Your task to perform on an android device: turn on location history Image 0: 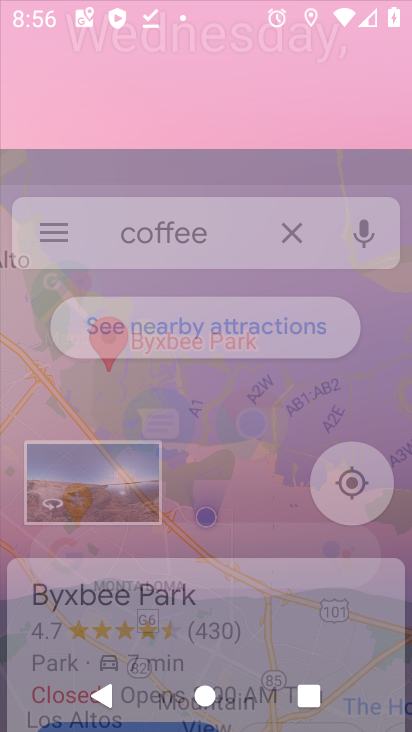
Step 0: click (180, 299)
Your task to perform on an android device: turn on location history Image 1: 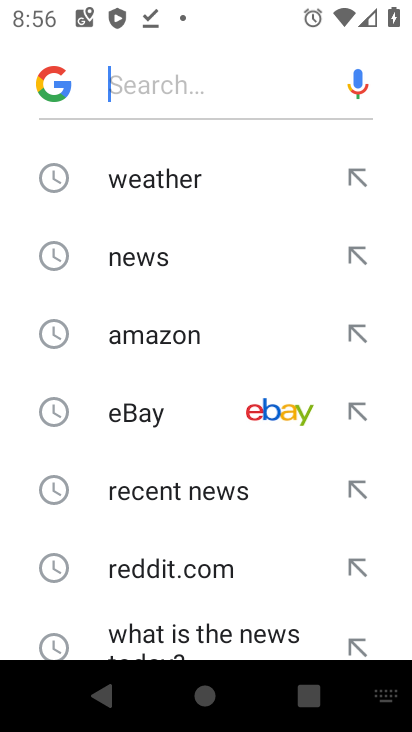
Step 1: press back button
Your task to perform on an android device: turn on location history Image 2: 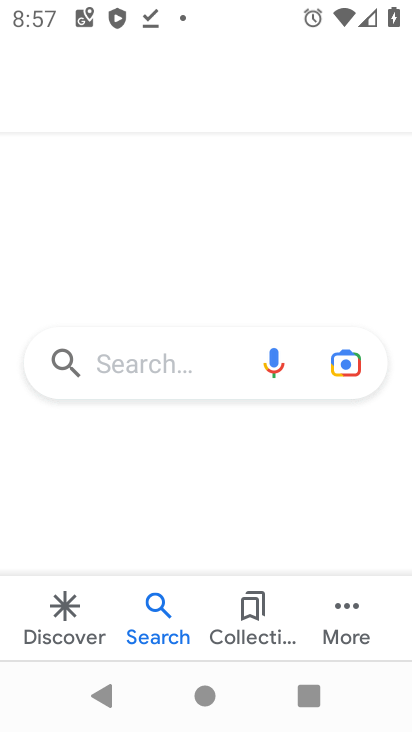
Step 2: press home button
Your task to perform on an android device: turn on location history Image 3: 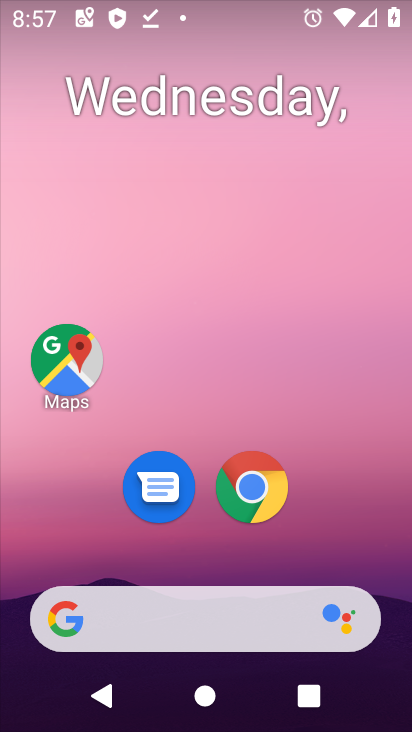
Step 3: drag from (282, 599) to (132, 39)
Your task to perform on an android device: turn on location history Image 4: 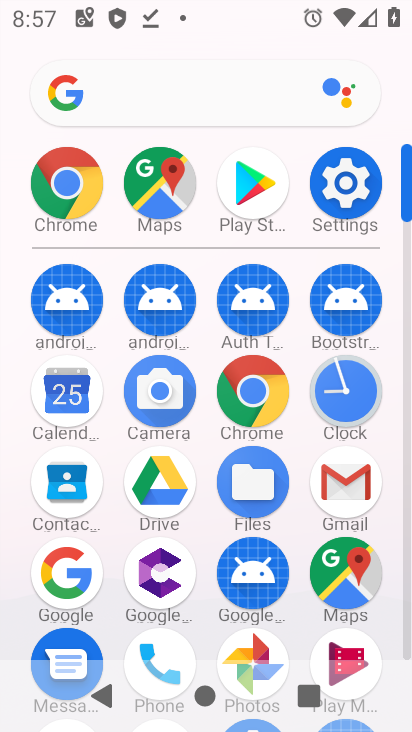
Step 4: click (355, 565)
Your task to perform on an android device: turn on location history Image 5: 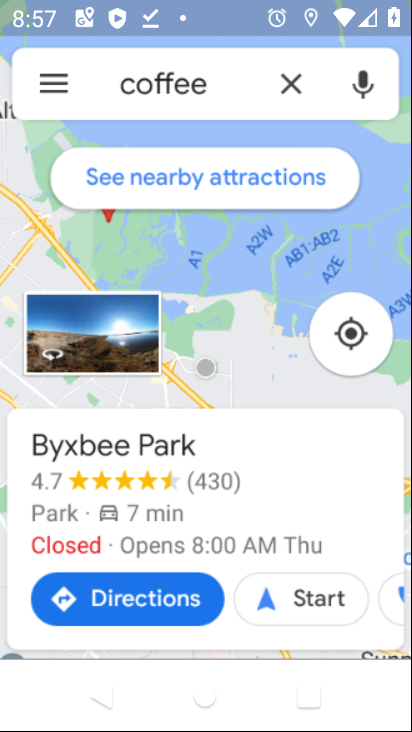
Step 5: click (344, 575)
Your task to perform on an android device: turn on location history Image 6: 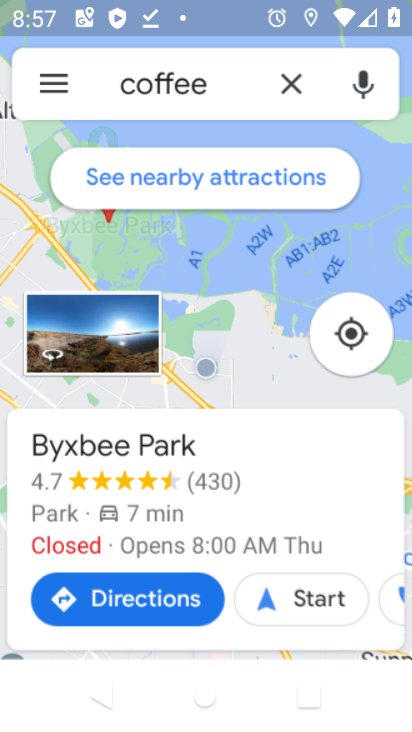
Step 6: click (345, 573)
Your task to perform on an android device: turn on location history Image 7: 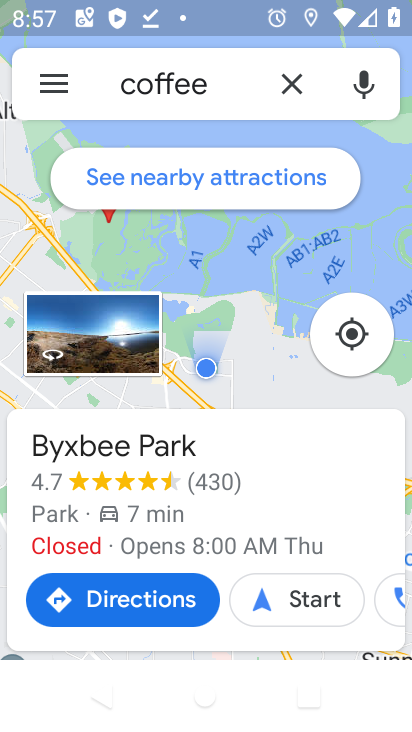
Step 7: click (59, 81)
Your task to perform on an android device: turn on location history Image 8: 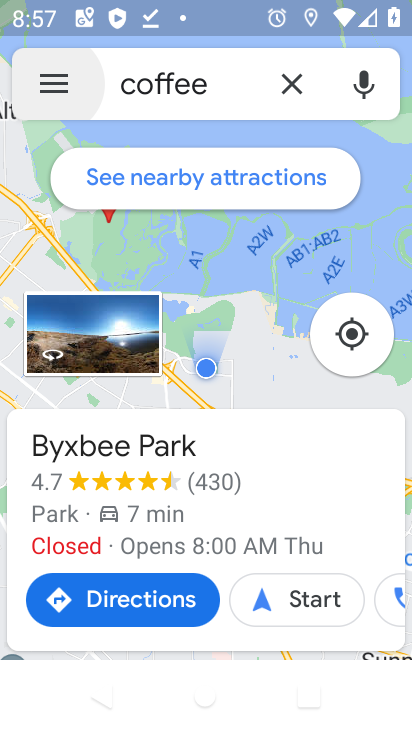
Step 8: click (58, 81)
Your task to perform on an android device: turn on location history Image 9: 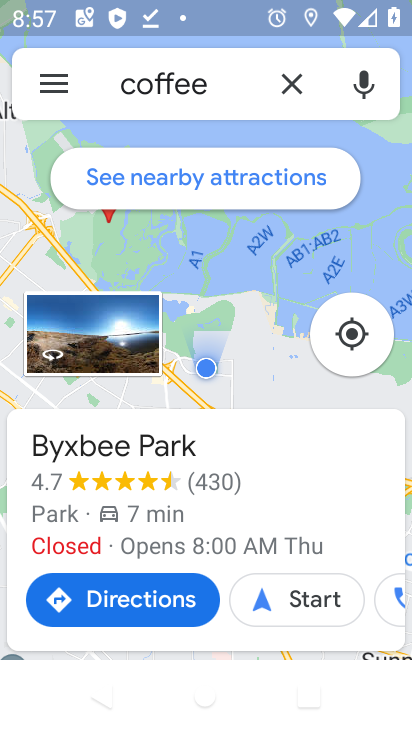
Step 9: click (70, 75)
Your task to perform on an android device: turn on location history Image 10: 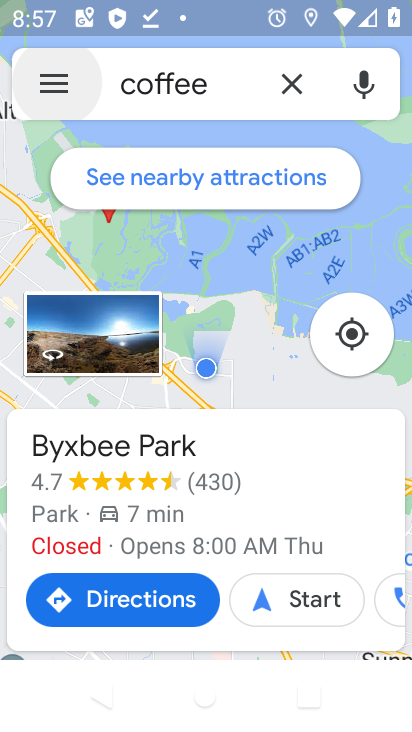
Step 10: click (70, 75)
Your task to perform on an android device: turn on location history Image 11: 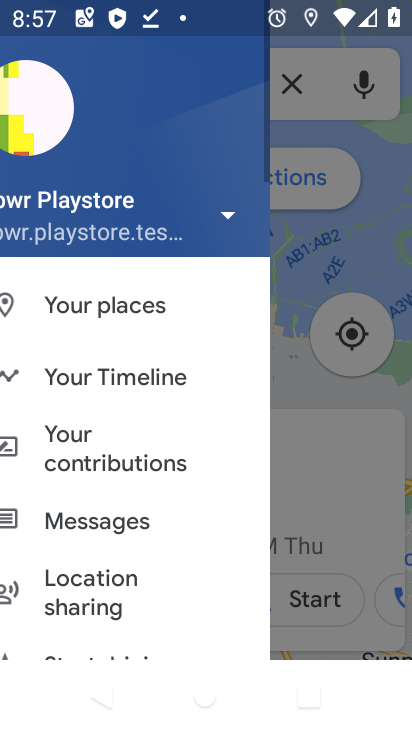
Step 11: click (70, 75)
Your task to perform on an android device: turn on location history Image 12: 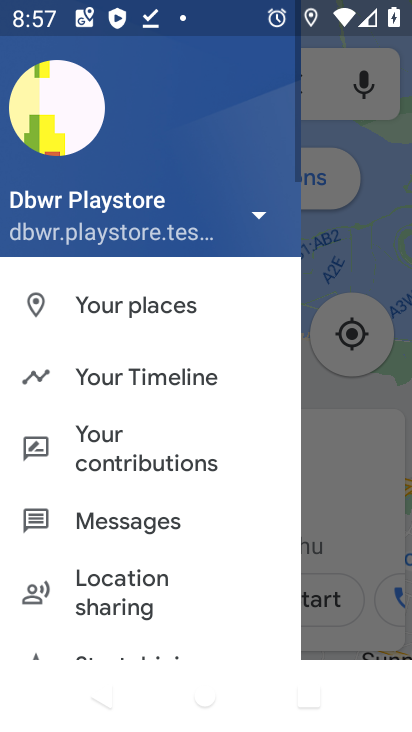
Step 12: click (70, 75)
Your task to perform on an android device: turn on location history Image 13: 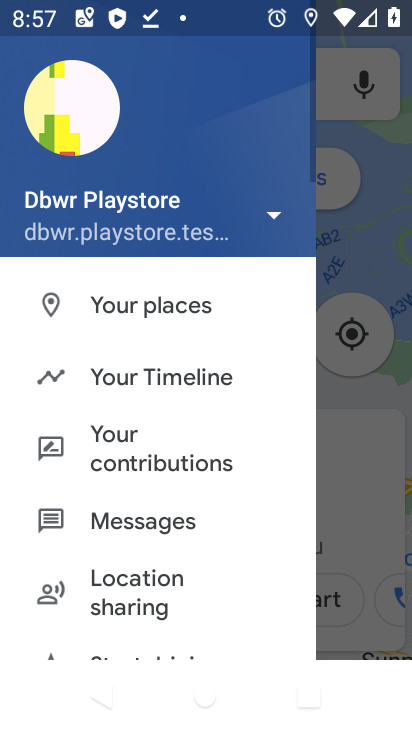
Step 13: click (159, 383)
Your task to perform on an android device: turn on location history Image 14: 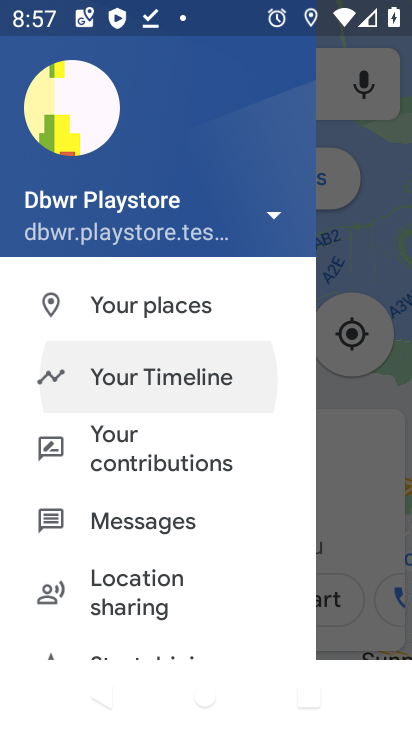
Step 14: click (168, 373)
Your task to perform on an android device: turn on location history Image 15: 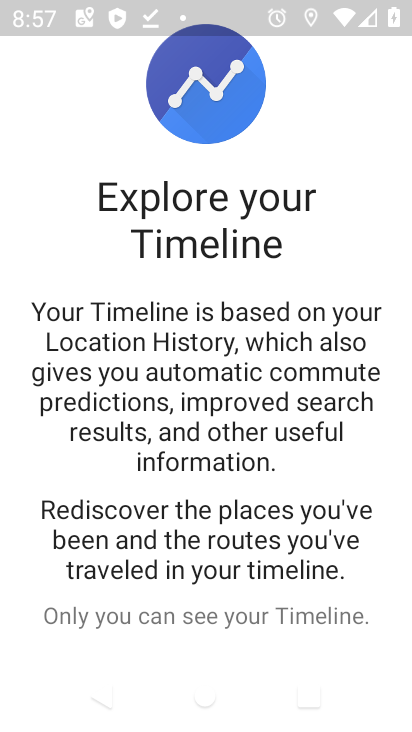
Step 15: drag from (183, 559) to (88, 297)
Your task to perform on an android device: turn on location history Image 16: 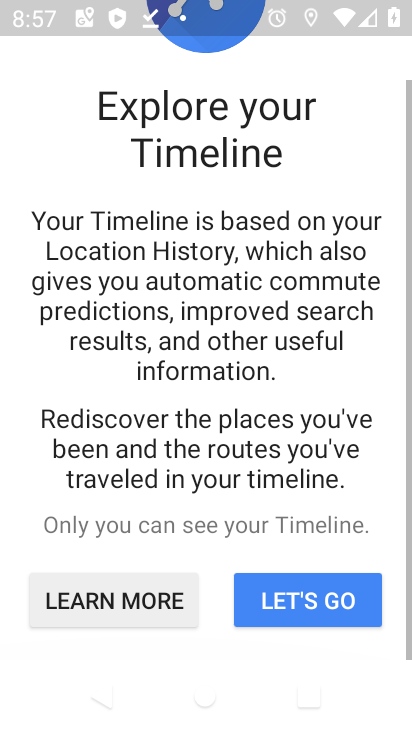
Step 16: drag from (181, 533) to (138, 264)
Your task to perform on an android device: turn on location history Image 17: 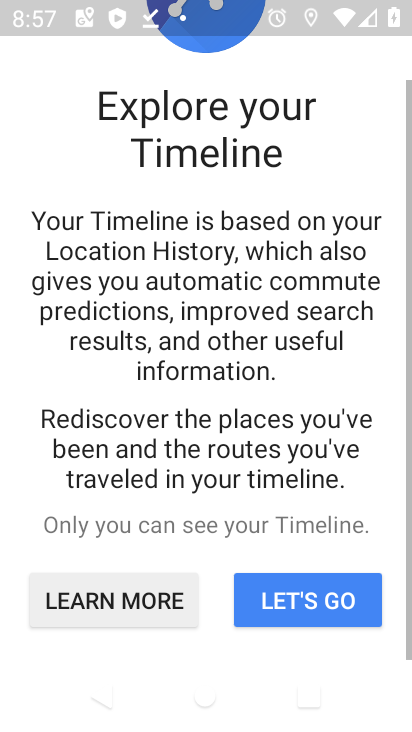
Step 17: click (318, 601)
Your task to perform on an android device: turn on location history Image 18: 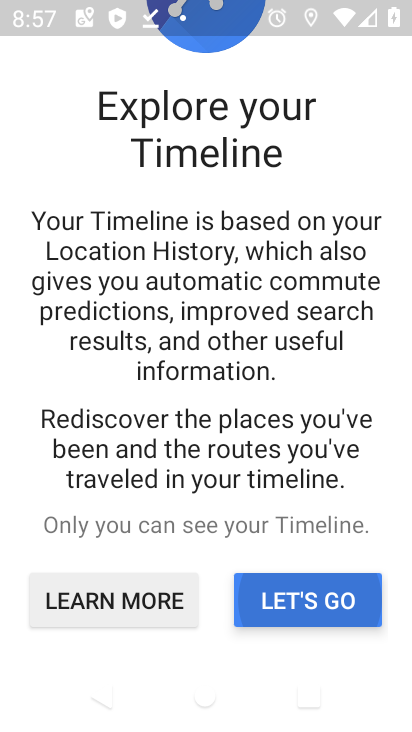
Step 18: click (318, 601)
Your task to perform on an android device: turn on location history Image 19: 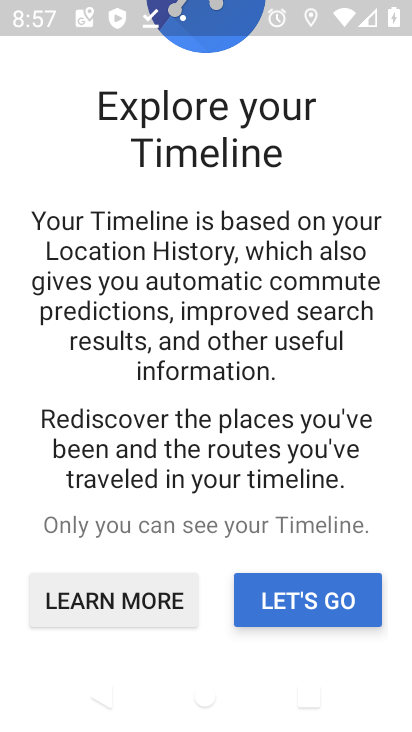
Step 19: click (318, 601)
Your task to perform on an android device: turn on location history Image 20: 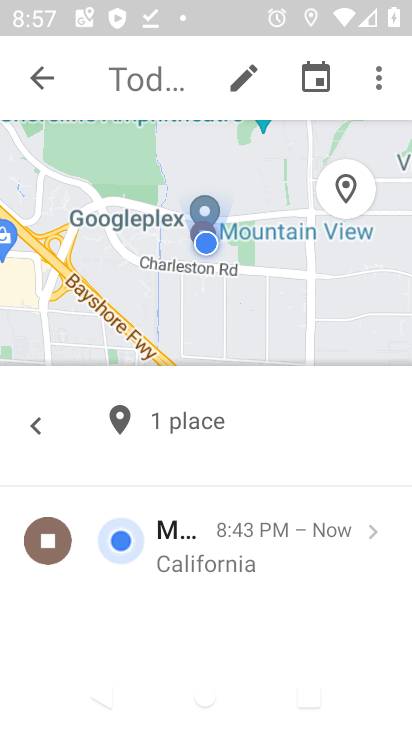
Step 20: drag from (370, 90) to (212, 502)
Your task to perform on an android device: turn on location history Image 21: 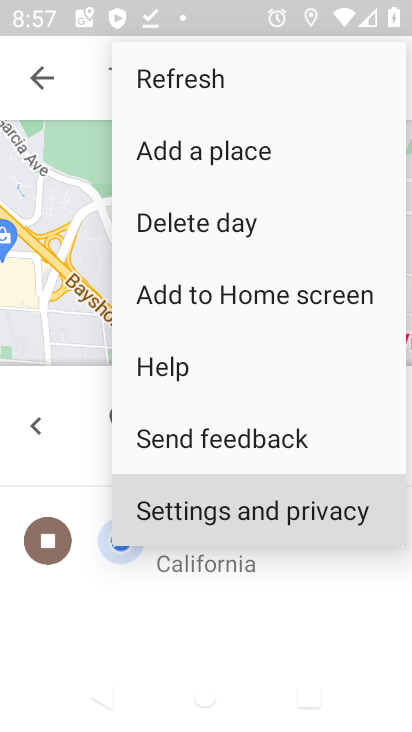
Step 21: click (212, 502)
Your task to perform on an android device: turn on location history Image 22: 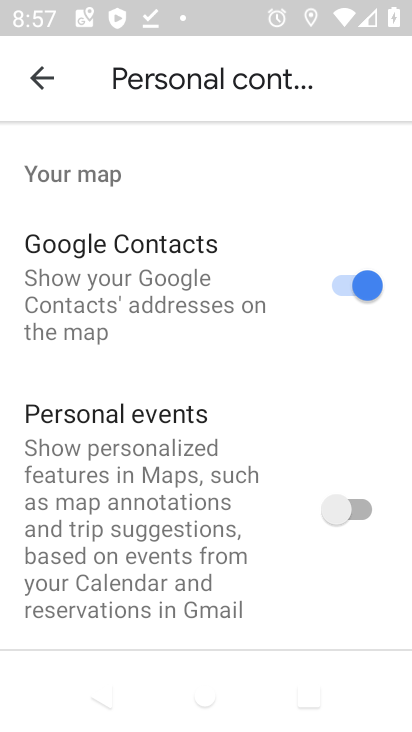
Step 22: drag from (150, 460) to (28, 29)
Your task to perform on an android device: turn on location history Image 23: 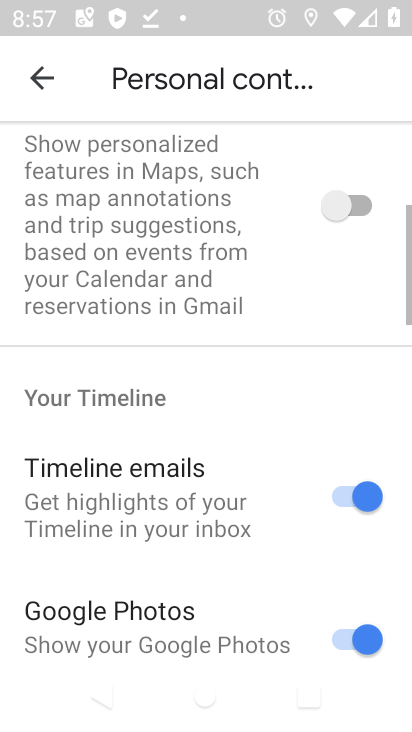
Step 23: drag from (184, 508) to (153, 137)
Your task to perform on an android device: turn on location history Image 24: 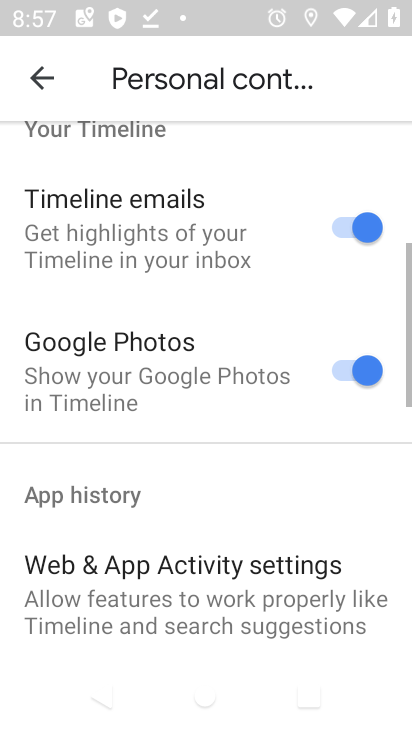
Step 24: drag from (219, 483) to (196, 153)
Your task to perform on an android device: turn on location history Image 25: 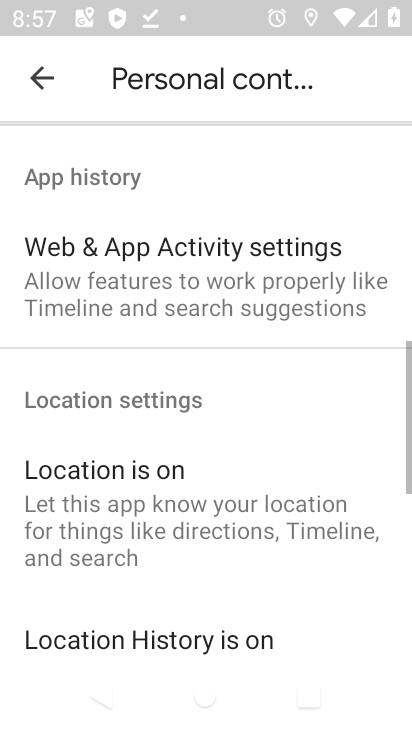
Step 25: drag from (247, 511) to (226, 219)
Your task to perform on an android device: turn on location history Image 26: 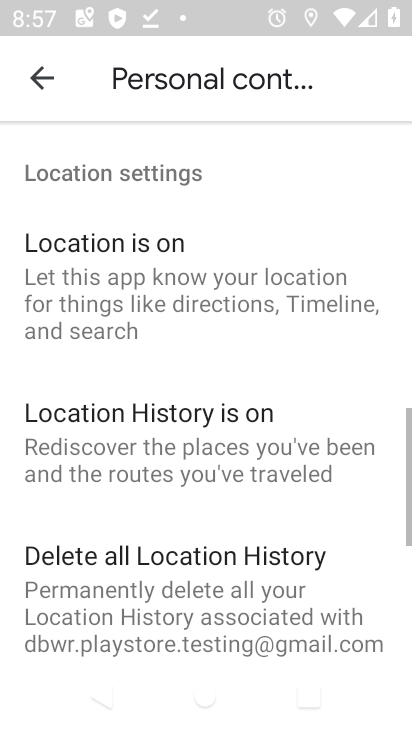
Step 26: drag from (266, 522) to (243, 237)
Your task to perform on an android device: turn on location history Image 27: 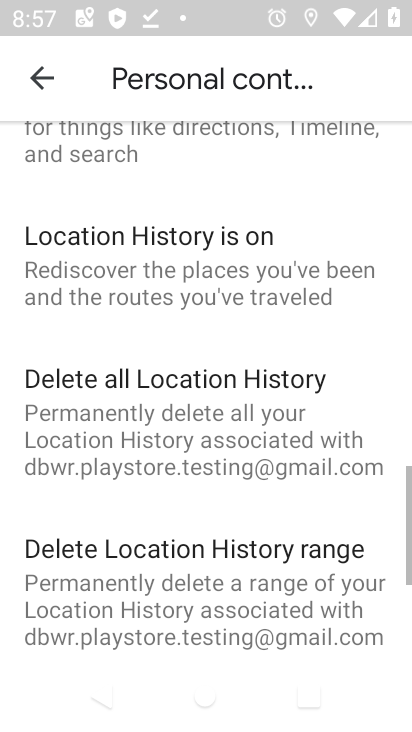
Step 27: drag from (238, 465) to (204, 252)
Your task to perform on an android device: turn on location history Image 28: 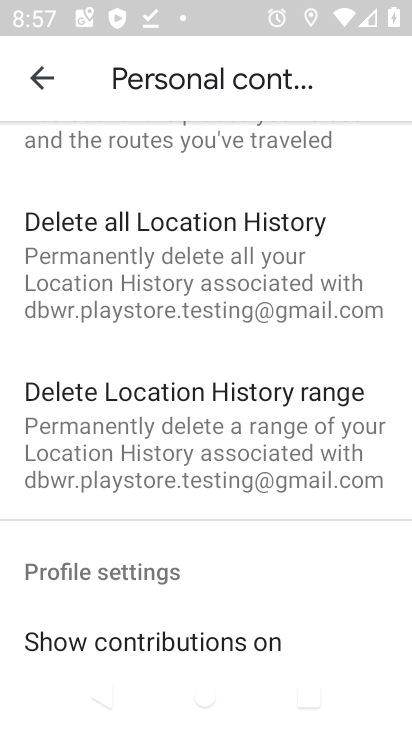
Step 28: drag from (199, 265) to (171, 648)
Your task to perform on an android device: turn on location history Image 29: 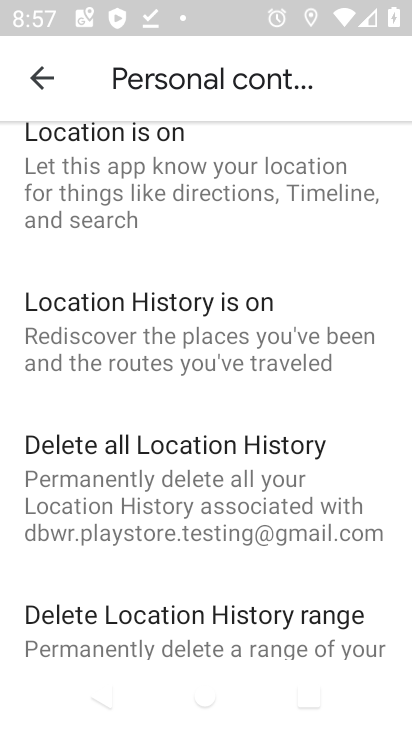
Step 29: click (169, 327)
Your task to perform on an android device: turn on location history Image 30: 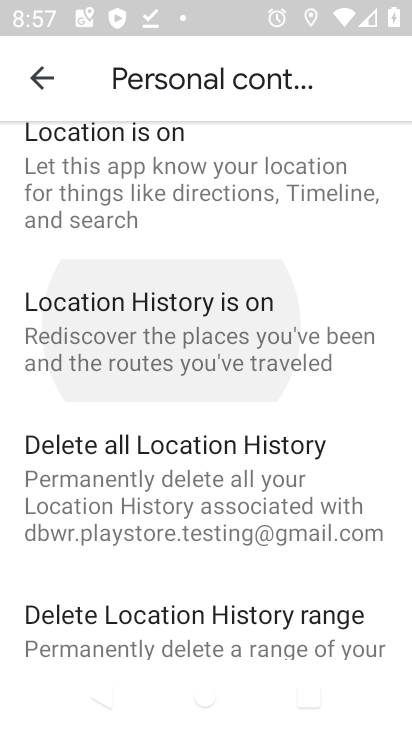
Step 30: click (170, 328)
Your task to perform on an android device: turn on location history Image 31: 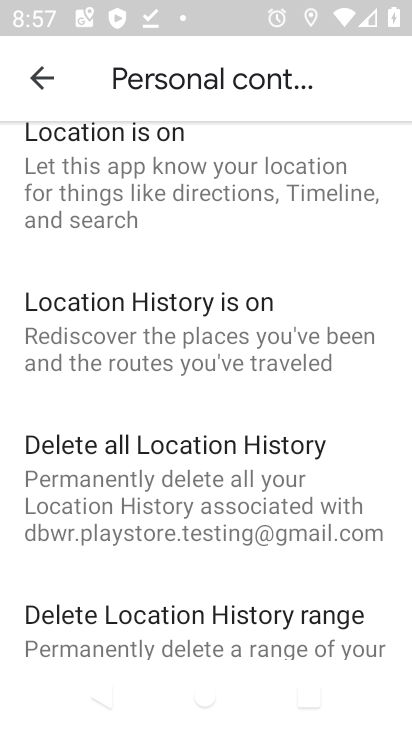
Step 31: click (170, 328)
Your task to perform on an android device: turn on location history Image 32: 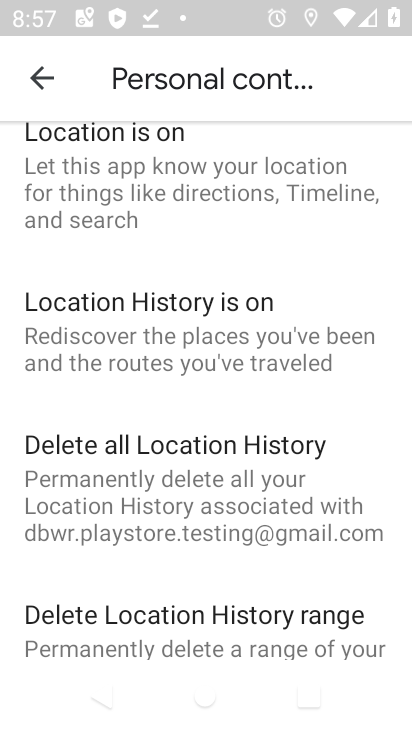
Step 32: click (170, 328)
Your task to perform on an android device: turn on location history Image 33: 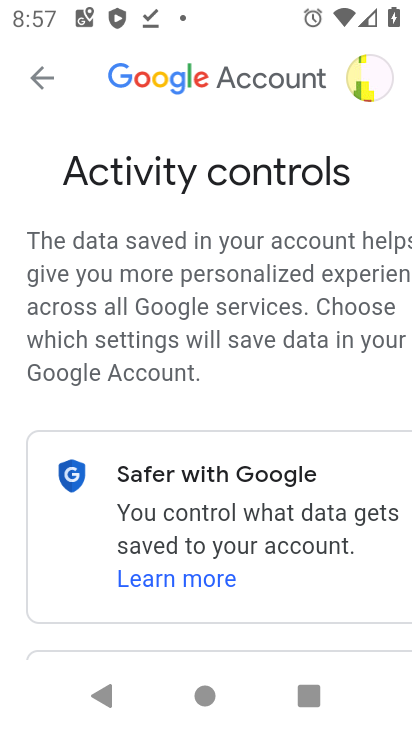
Step 33: task complete